Your task to perform on an android device: uninstall "ZOOM Cloud Meetings" Image 0: 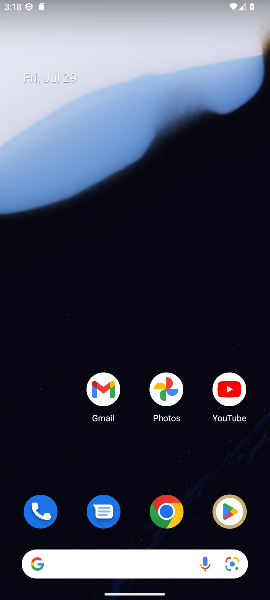
Step 0: drag from (69, 482) to (131, 150)
Your task to perform on an android device: uninstall "ZOOM Cloud Meetings" Image 1: 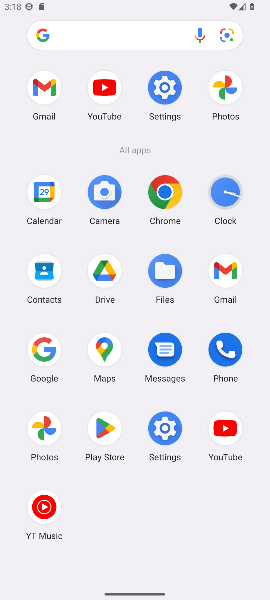
Step 1: drag from (177, 290) to (7, 282)
Your task to perform on an android device: uninstall "ZOOM Cloud Meetings" Image 2: 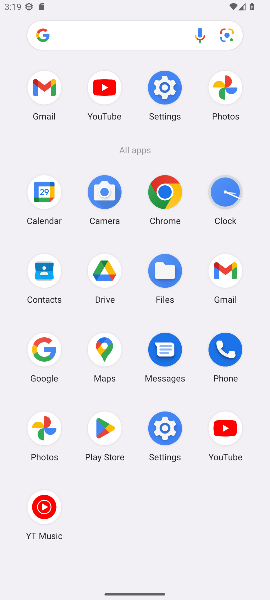
Step 2: drag from (2, 334) to (185, 324)
Your task to perform on an android device: uninstall "ZOOM Cloud Meetings" Image 3: 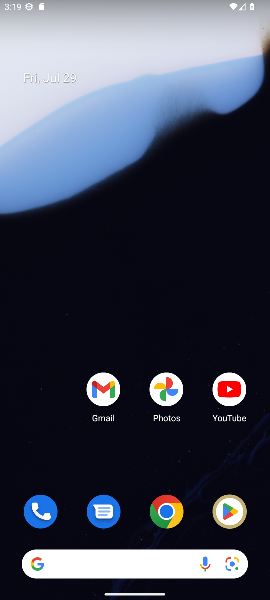
Step 3: click (217, 514)
Your task to perform on an android device: uninstall "ZOOM Cloud Meetings" Image 4: 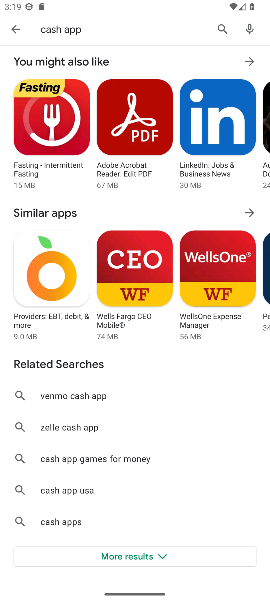
Step 4: click (16, 29)
Your task to perform on an android device: uninstall "ZOOM Cloud Meetings" Image 5: 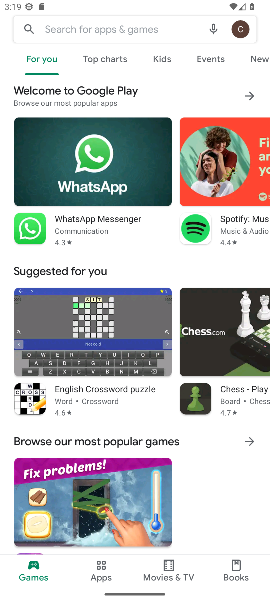
Step 5: click (74, 25)
Your task to perform on an android device: uninstall "ZOOM Cloud Meetings" Image 6: 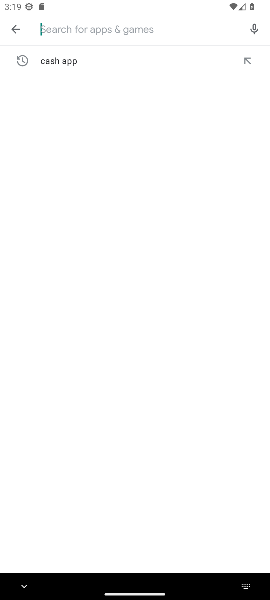
Step 6: type "ZOOM Cloud Meetings"
Your task to perform on an android device: uninstall "ZOOM Cloud Meetings" Image 7: 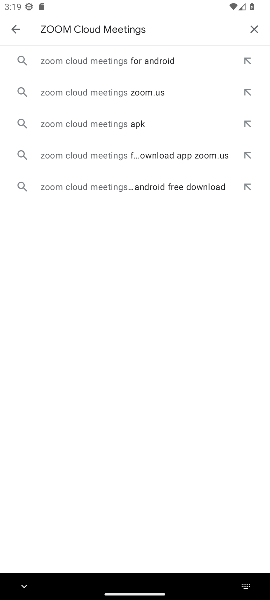
Step 7: click (69, 62)
Your task to perform on an android device: uninstall "ZOOM Cloud Meetings" Image 8: 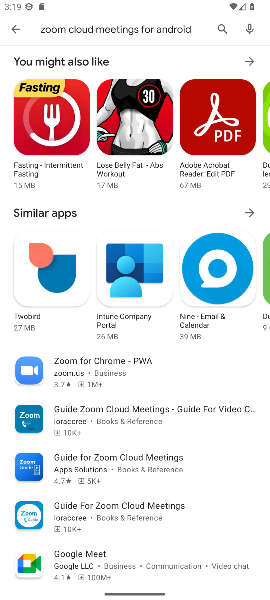
Step 8: task complete